Your task to perform on an android device: Add razer deathadder to the cart on bestbuy.com Image 0: 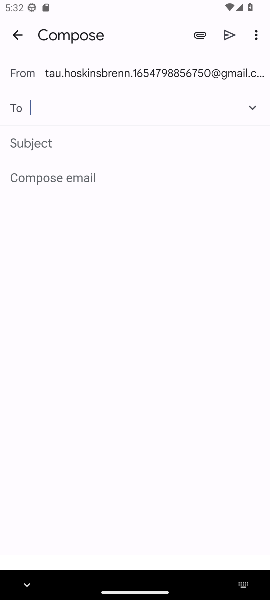
Step 0: press home button
Your task to perform on an android device: Add razer deathadder to the cart on bestbuy.com Image 1: 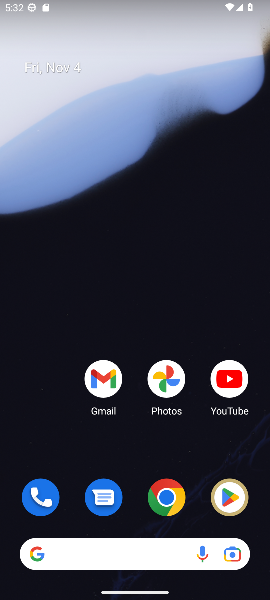
Step 1: click (161, 504)
Your task to perform on an android device: Add razer deathadder to the cart on bestbuy.com Image 2: 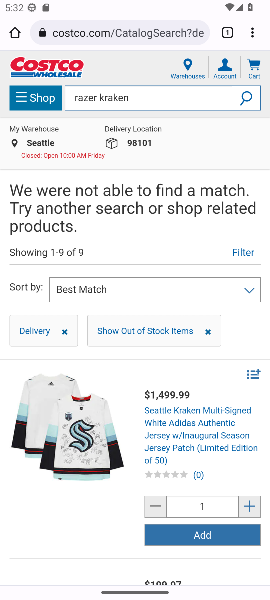
Step 2: drag from (128, 27) to (129, 60)
Your task to perform on an android device: Add razer deathadder to the cart on bestbuy.com Image 3: 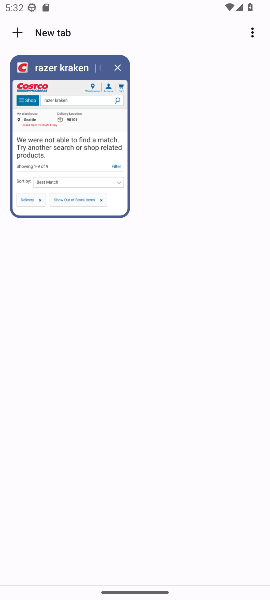
Step 3: click (59, 67)
Your task to perform on an android device: Add razer deathadder to the cart on bestbuy.com Image 4: 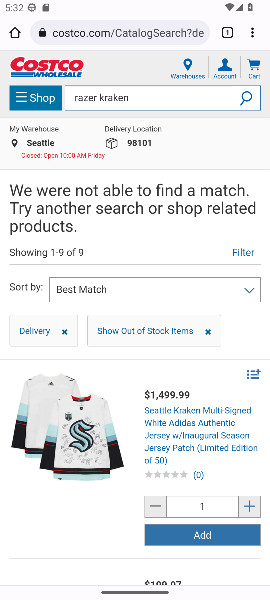
Step 4: click (133, 35)
Your task to perform on an android device: Add razer deathadder to the cart on bestbuy.com Image 5: 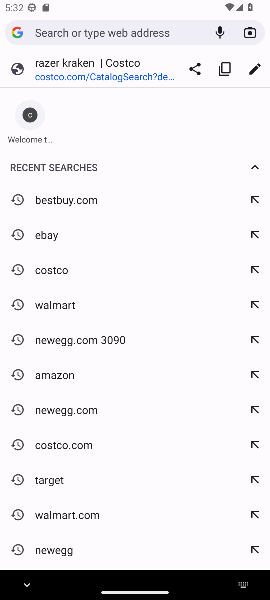
Step 5: click (64, 204)
Your task to perform on an android device: Add razer deathadder to the cart on bestbuy.com Image 6: 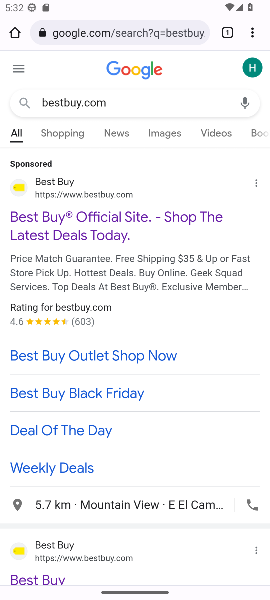
Step 6: drag from (66, 515) to (97, 218)
Your task to perform on an android device: Add razer deathadder to the cart on bestbuy.com Image 7: 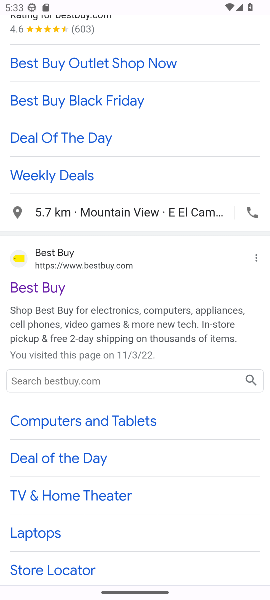
Step 7: click (50, 261)
Your task to perform on an android device: Add razer deathadder to the cart on bestbuy.com Image 8: 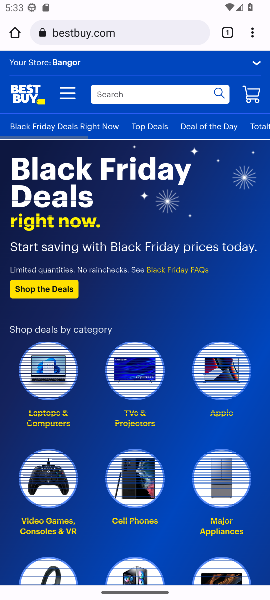
Step 8: click (111, 92)
Your task to perform on an android device: Add razer deathadder to the cart on bestbuy.com Image 9: 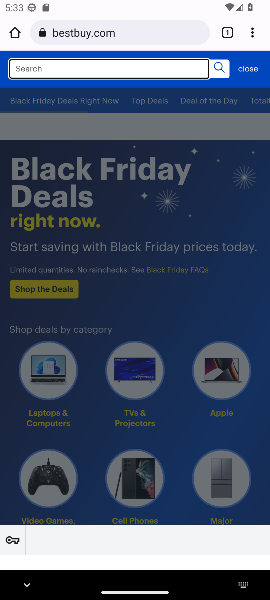
Step 9: type "razer deathadder"
Your task to perform on an android device: Add razer deathadder to the cart on bestbuy.com Image 10: 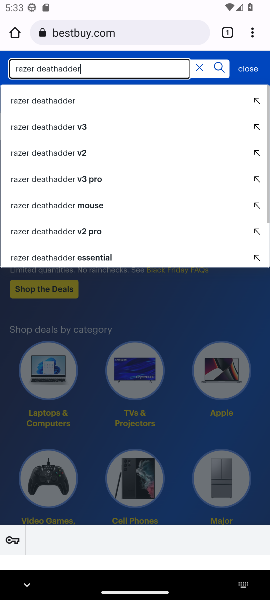
Step 10: click (51, 103)
Your task to perform on an android device: Add razer deathadder to the cart on bestbuy.com Image 11: 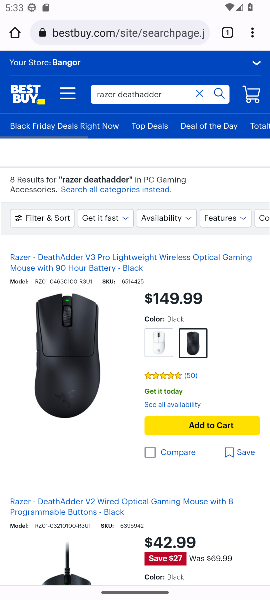
Step 11: click (74, 386)
Your task to perform on an android device: Add razer deathadder to the cart on bestbuy.com Image 12: 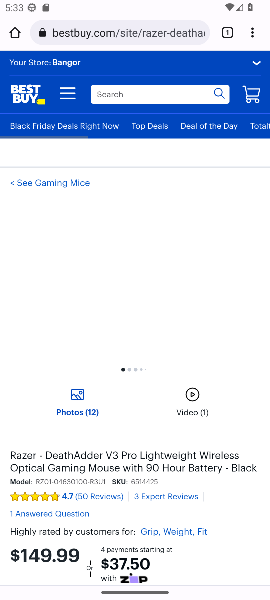
Step 12: drag from (110, 460) to (120, 214)
Your task to perform on an android device: Add razer deathadder to the cart on bestbuy.com Image 13: 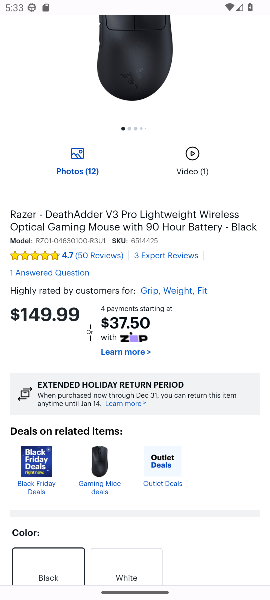
Step 13: drag from (142, 421) to (140, 235)
Your task to perform on an android device: Add razer deathadder to the cart on bestbuy.com Image 14: 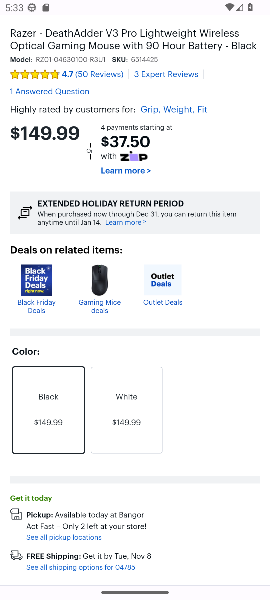
Step 14: drag from (140, 468) to (159, 297)
Your task to perform on an android device: Add razer deathadder to the cart on bestbuy.com Image 15: 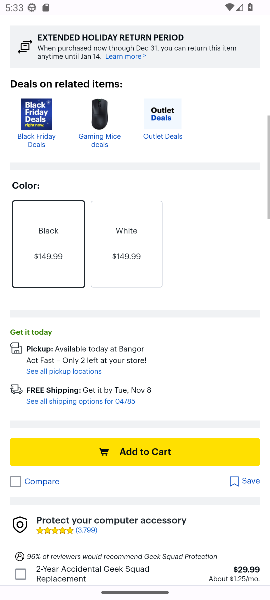
Step 15: drag from (132, 522) to (163, 242)
Your task to perform on an android device: Add razer deathadder to the cart on bestbuy.com Image 16: 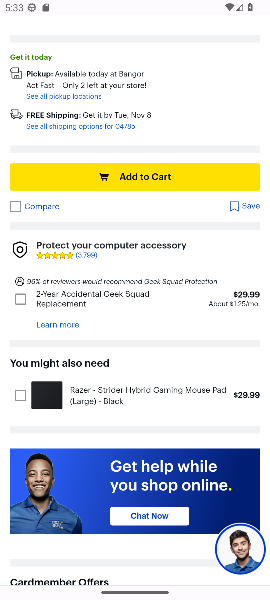
Step 16: click (140, 185)
Your task to perform on an android device: Add razer deathadder to the cart on bestbuy.com Image 17: 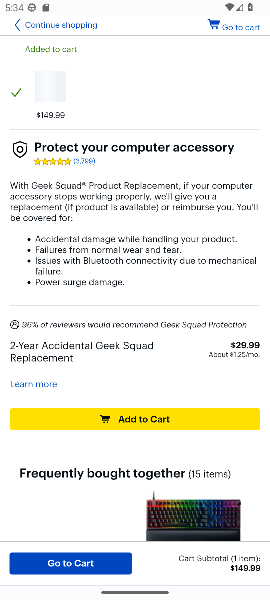
Step 17: task complete